Your task to perform on an android device: turn vacation reply on in the gmail app Image 0: 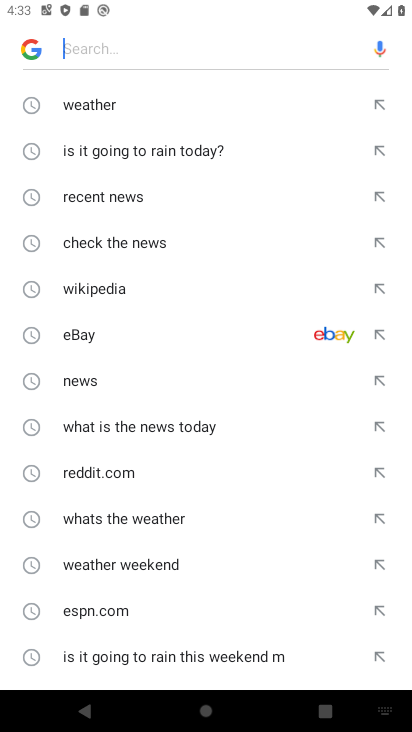
Step 0: press home button
Your task to perform on an android device: turn vacation reply on in the gmail app Image 1: 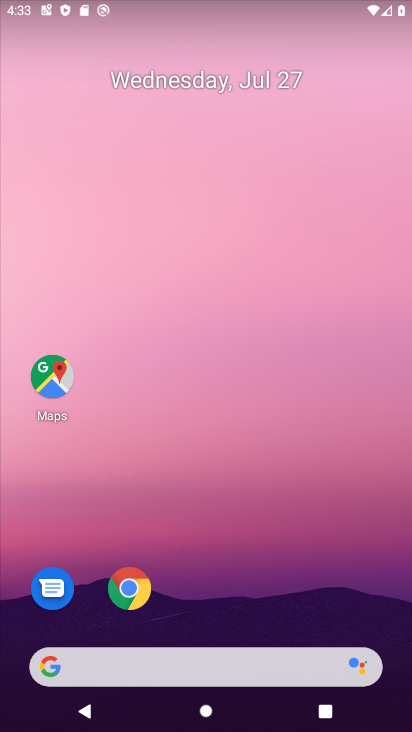
Step 1: drag from (236, 713) to (233, 88)
Your task to perform on an android device: turn vacation reply on in the gmail app Image 2: 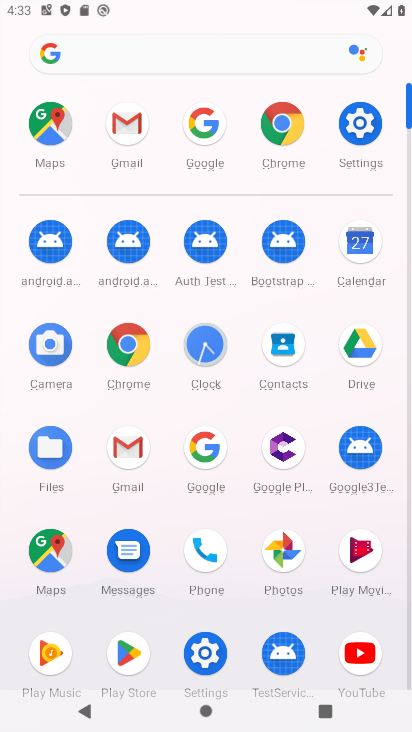
Step 2: click (123, 440)
Your task to perform on an android device: turn vacation reply on in the gmail app Image 3: 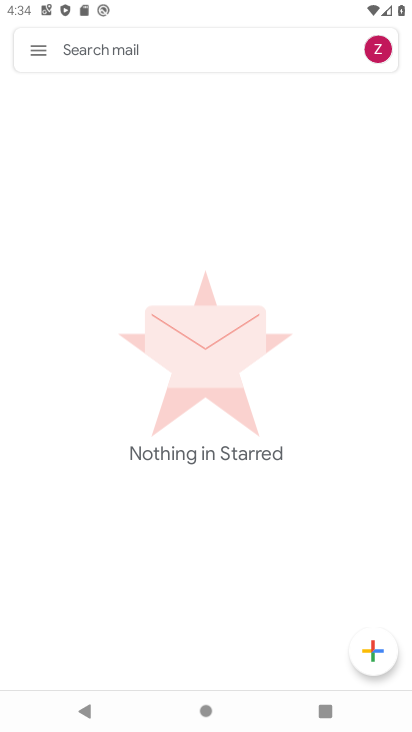
Step 3: click (37, 52)
Your task to perform on an android device: turn vacation reply on in the gmail app Image 4: 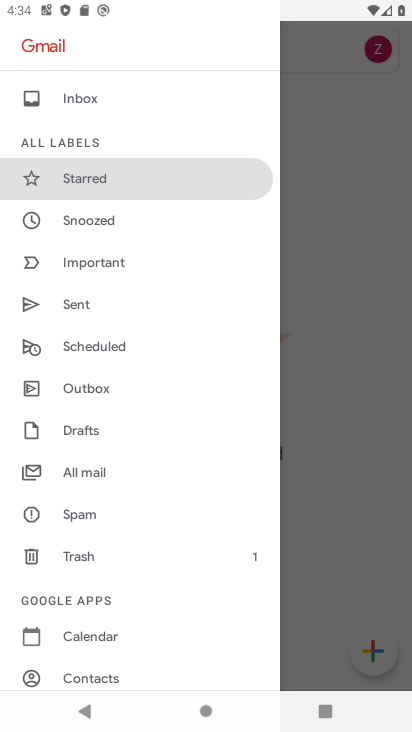
Step 4: drag from (93, 634) to (82, 370)
Your task to perform on an android device: turn vacation reply on in the gmail app Image 5: 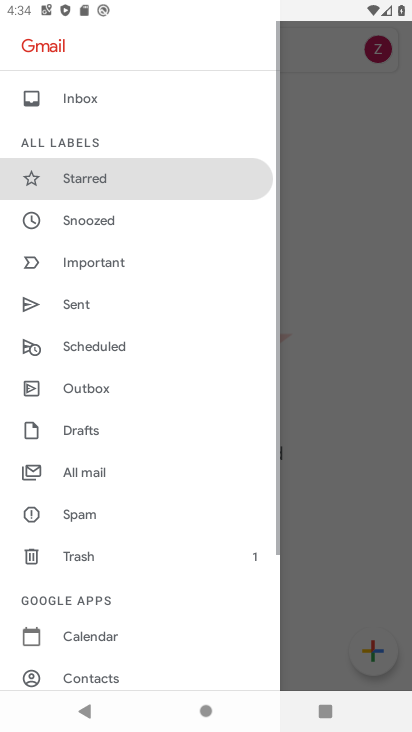
Step 5: drag from (94, 665) to (94, 405)
Your task to perform on an android device: turn vacation reply on in the gmail app Image 6: 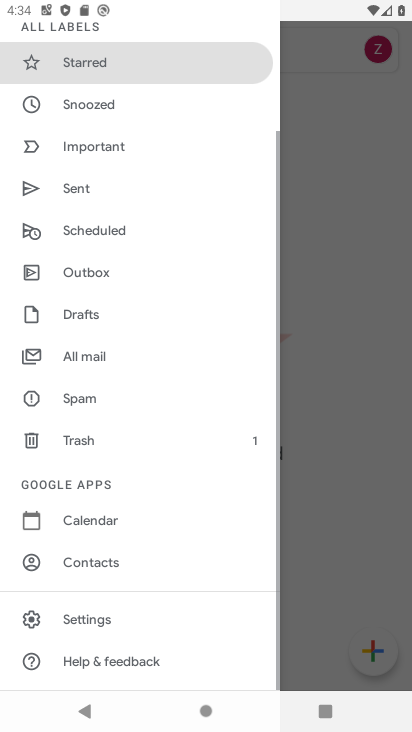
Step 6: click (73, 617)
Your task to perform on an android device: turn vacation reply on in the gmail app Image 7: 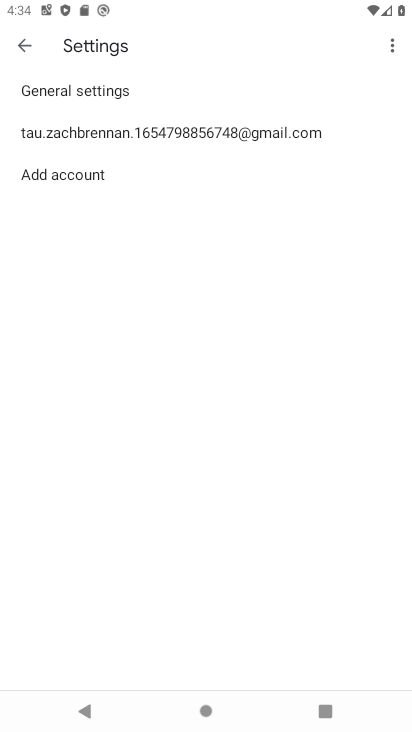
Step 7: click (128, 129)
Your task to perform on an android device: turn vacation reply on in the gmail app Image 8: 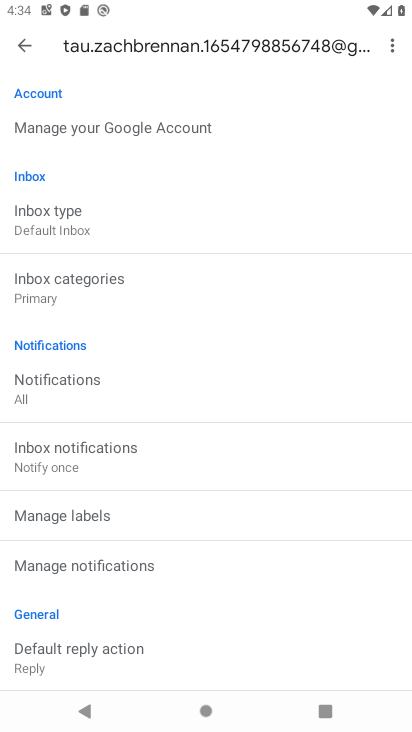
Step 8: drag from (79, 618) to (96, 321)
Your task to perform on an android device: turn vacation reply on in the gmail app Image 9: 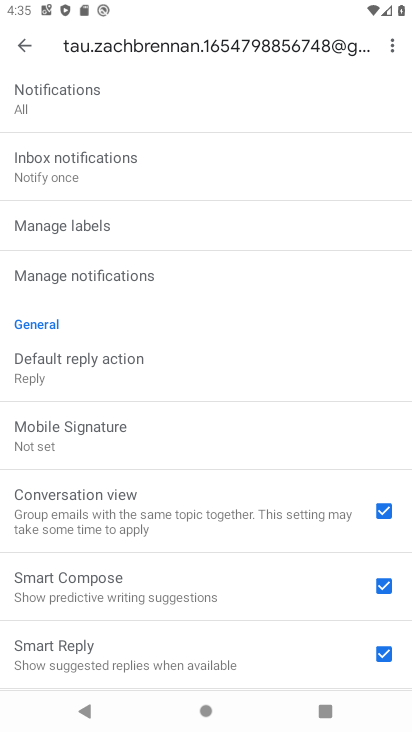
Step 9: drag from (138, 623) to (144, 351)
Your task to perform on an android device: turn vacation reply on in the gmail app Image 10: 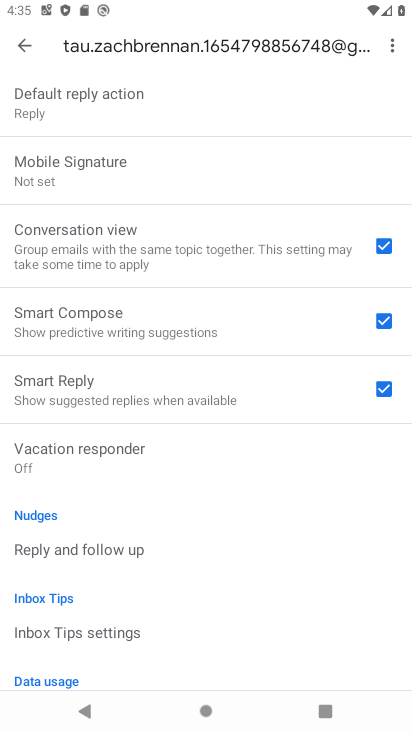
Step 10: click (100, 446)
Your task to perform on an android device: turn vacation reply on in the gmail app Image 11: 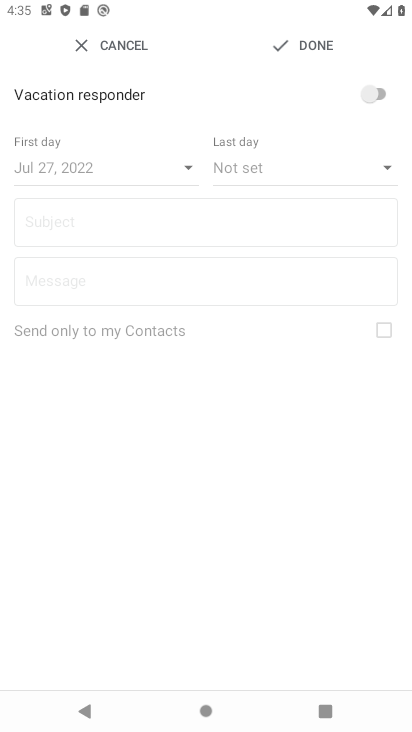
Step 11: click (378, 97)
Your task to perform on an android device: turn vacation reply on in the gmail app Image 12: 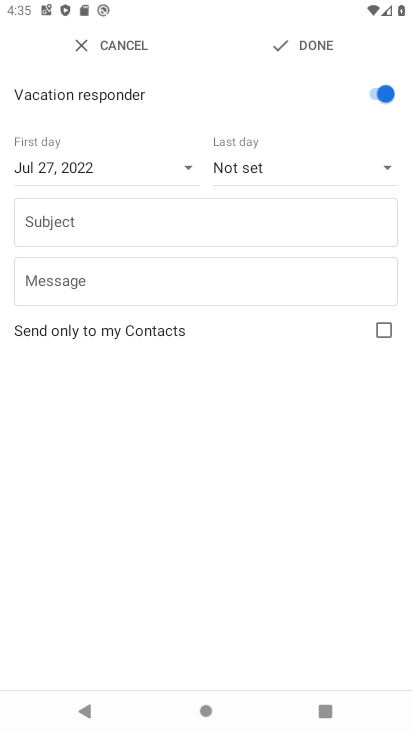
Step 12: task complete